Your task to perform on an android device: Set the phone to "Do not disturb". Image 0: 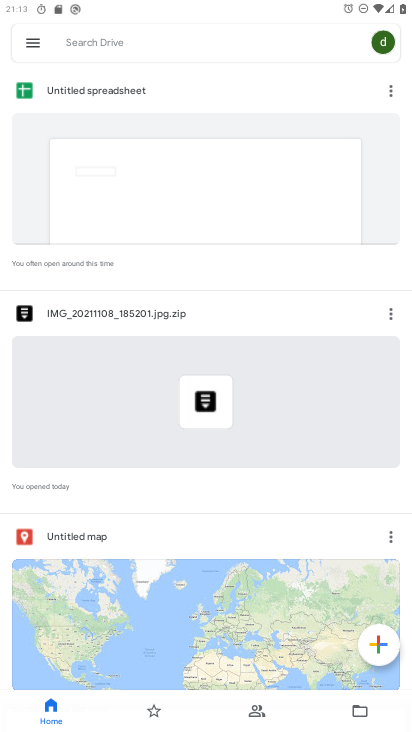
Step 0: press home button
Your task to perform on an android device: Set the phone to "Do not disturb". Image 1: 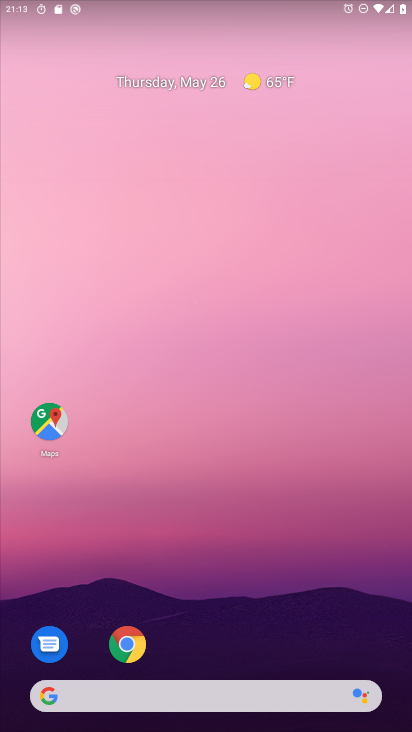
Step 1: drag from (219, 636) to (10, 55)
Your task to perform on an android device: Set the phone to "Do not disturb". Image 2: 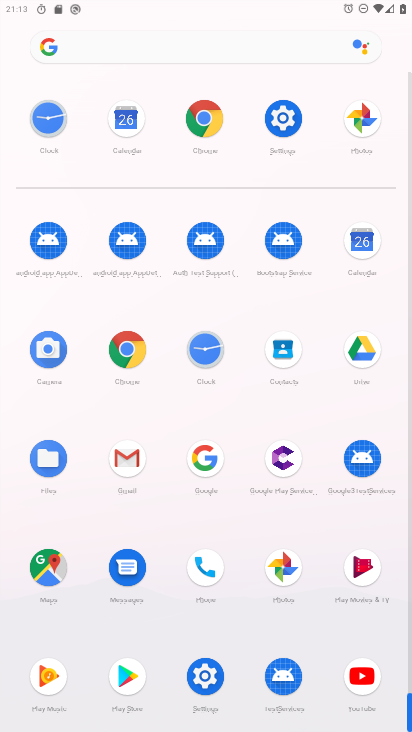
Step 2: click (284, 113)
Your task to perform on an android device: Set the phone to "Do not disturb". Image 3: 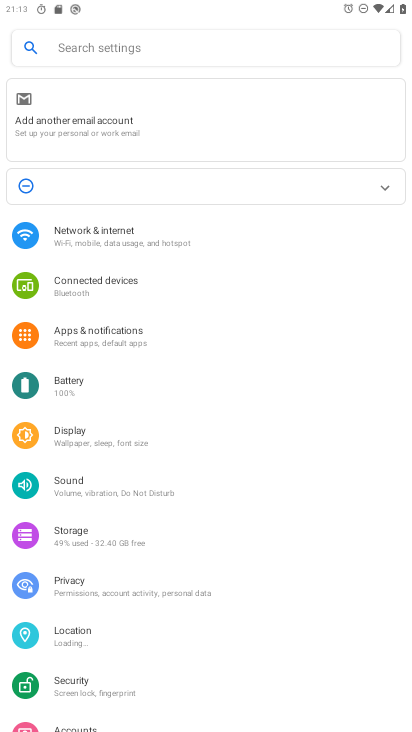
Step 3: drag from (173, 531) to (291, 95)
Your task to perform on an android device: Set the phone to "Do not disturb". Image 4: 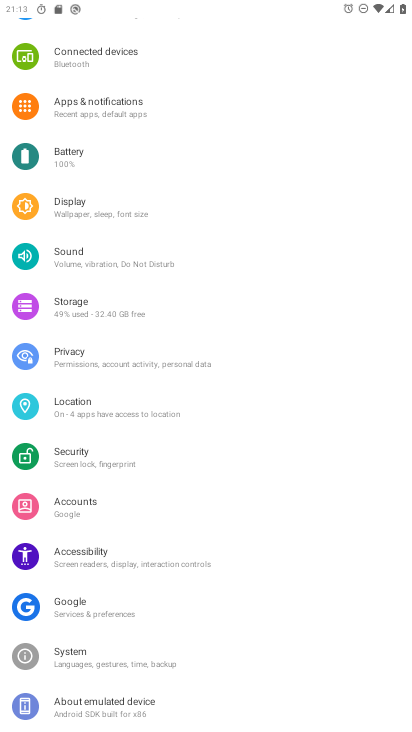
Step 4: click (130, 104)
Your task to perform on an android device: Set the phone to "Do not disturb". Image 5: 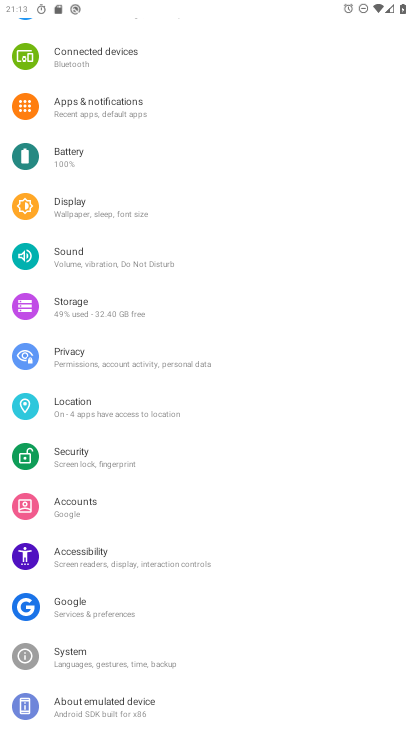
Step 5: click (130, 104)
Your task to perform on an android device: Set the phone to "Do not disturb". Image 6: 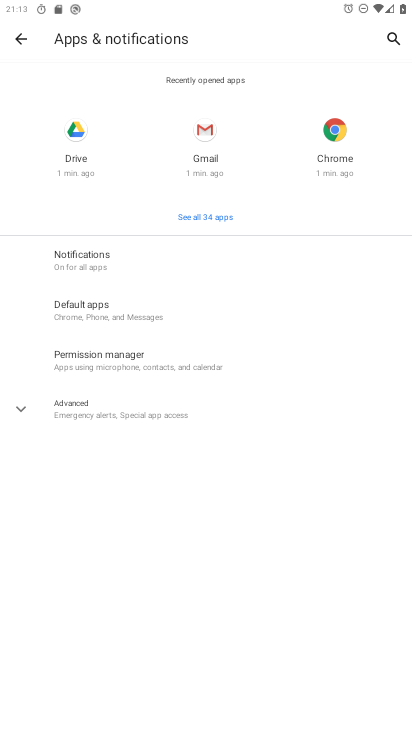
Step 6: click (131, 276)
Your task to perform on an android device: Set the phone to "Do not disturb". Image 7: 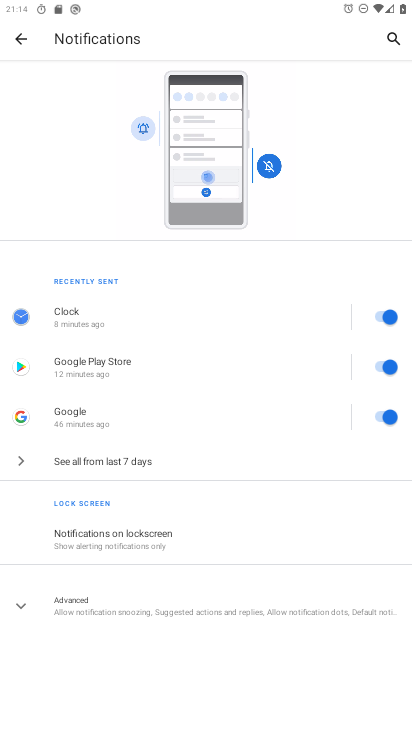
Step 7: click (95, 610)
Your task to perform on an android device: Set the phone to "Do not disturb". Image 8: 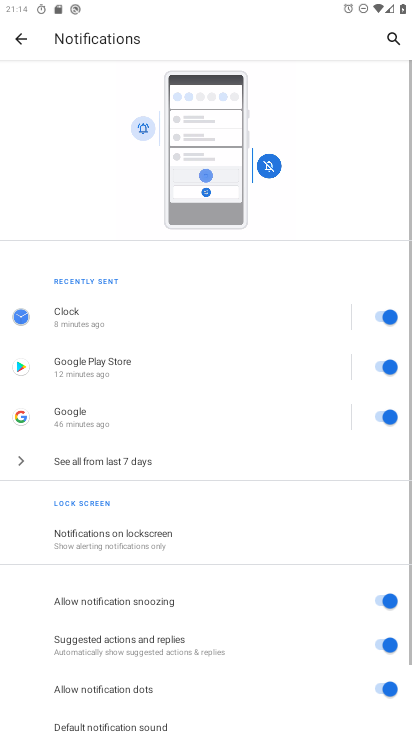
Step 8: drag from (192, 563) to (279, 166)
Your task to perform on an android device: Set the phone to "Do not disturb". Image 9: 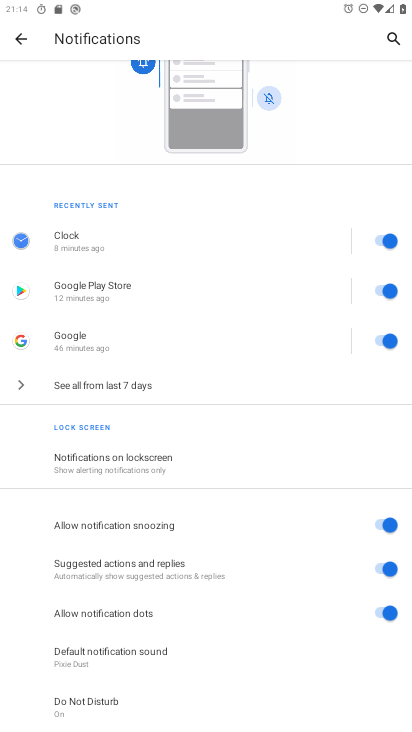
Step 9: click (128, 699)
Your task to perform on an android device: Set the phone to "Do not disturb". Image 10: 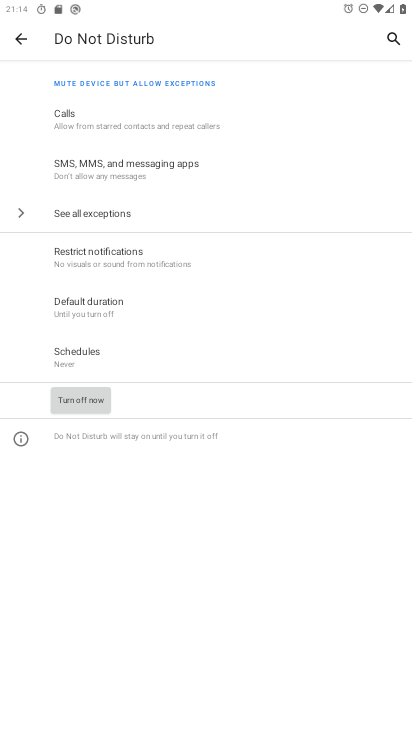
Step 10: click (76, 406)
Your task to perform on an android device: Set the phone to "Do not disturb". Image 11: 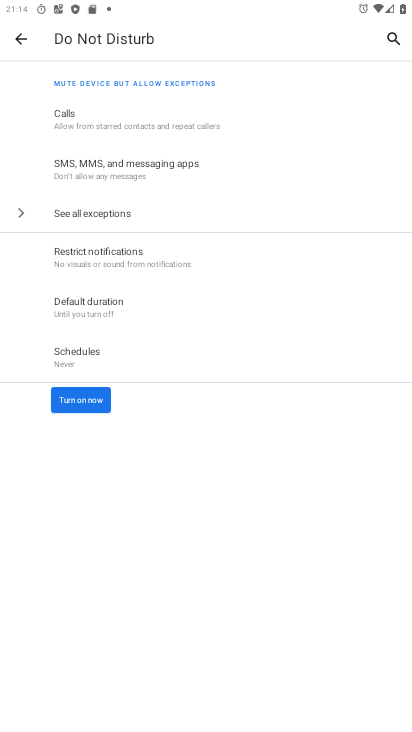
Step 11: click (86, 397)
Your task to perform on an android device: Set the phone to "Do not disturb". Image 12: 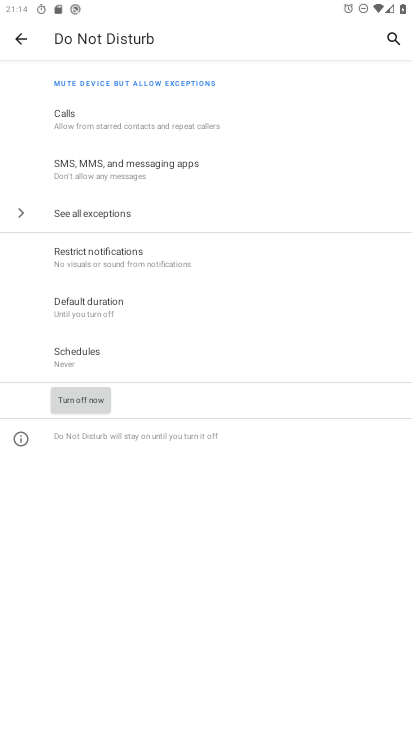
Step 12: task complete